Your task to perform on an android device: Go to CNN.com Image 0: 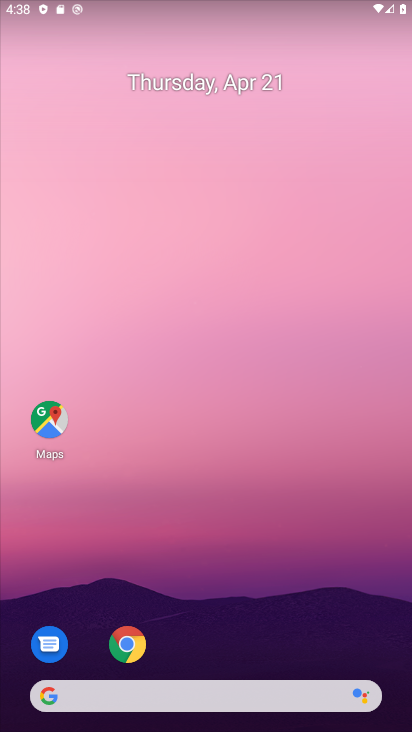
Step 0: click (130, 641)
Your task to perform on an android device: Go to CNN.com Image 1: 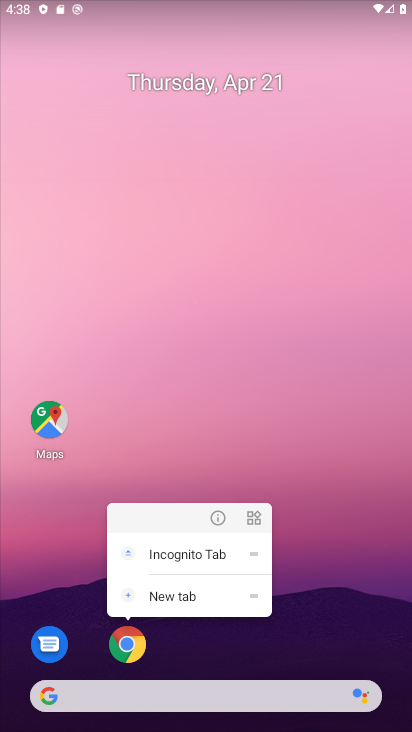
Step 1: drag from (317, 627) to (319, 167)
Your task to perform on an android device: Go to CNN.com Image 2: 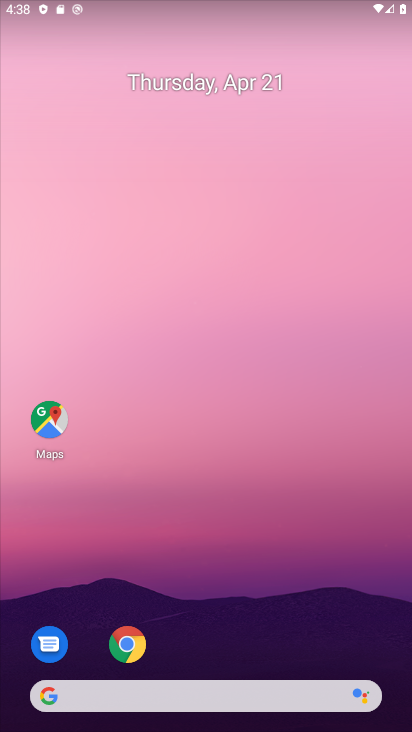
Step 2: drag from (260, 603) to (266, 164)
Your task to perform on an android device: Go to CNN.com Image 3: 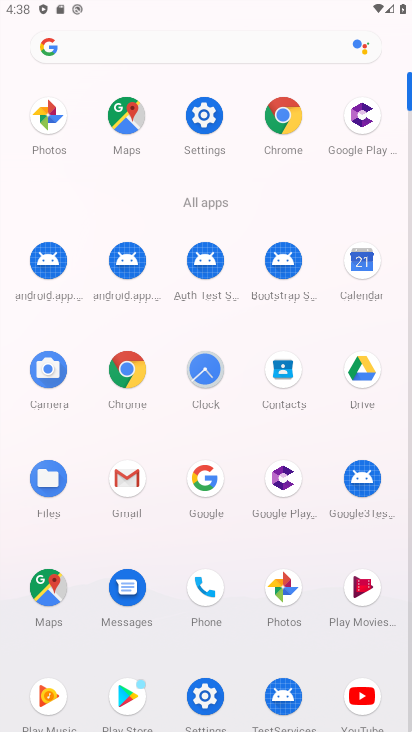
Step 3: click (135, 371)
Your task to perform on an android device: Go to CNN.com Image 4: 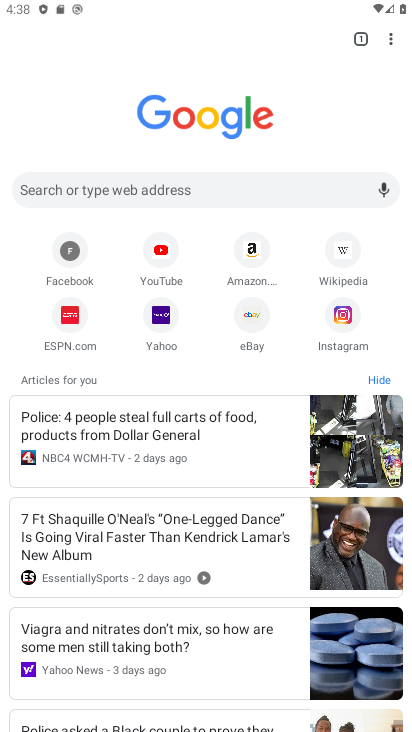
Step 4: click (205, 198)
Your task to perform on an android device: Go to CNN.com Image 5: 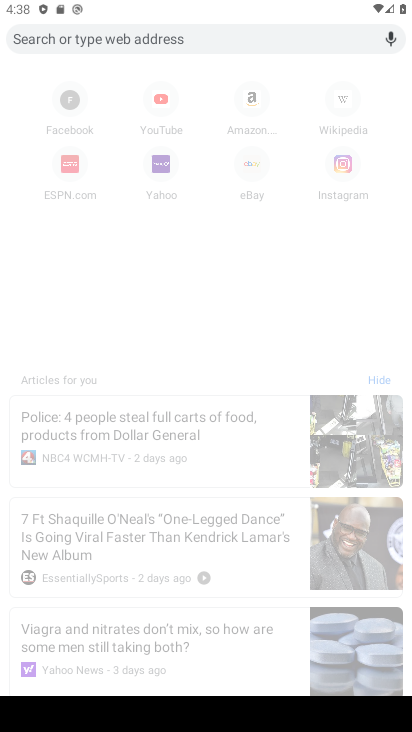
Step 5: type "cnn.com"
Your task to perform on an android device: Go to CNN.com Image 6: 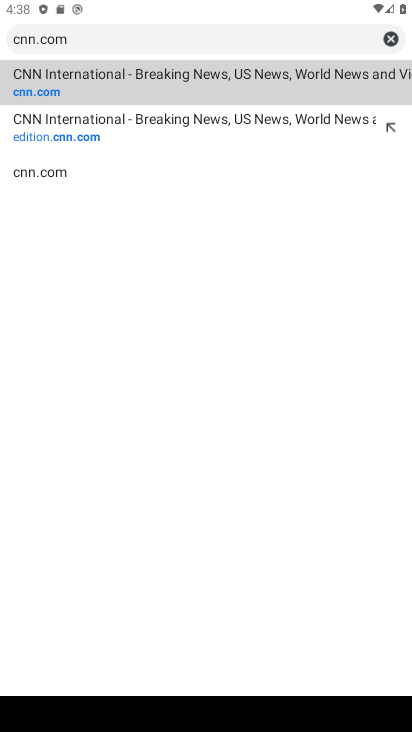
Step 6: click (90, 85)
Your task to perform on an android device: Go to CNN.com Image 7: 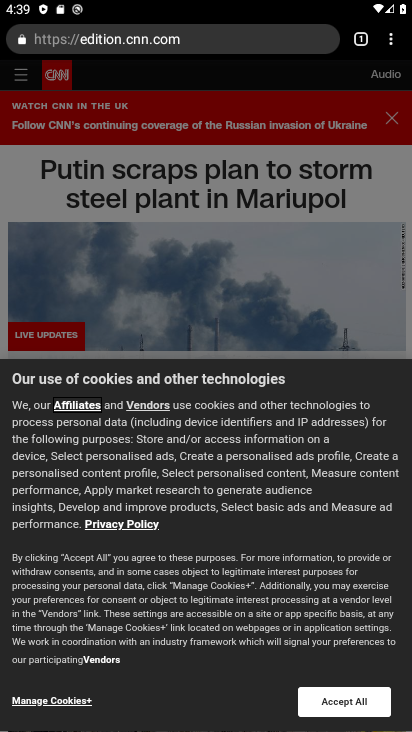
Step 7: task complete